Your task to perform on an android device: toggle show notifications on the lock screen Image 0: 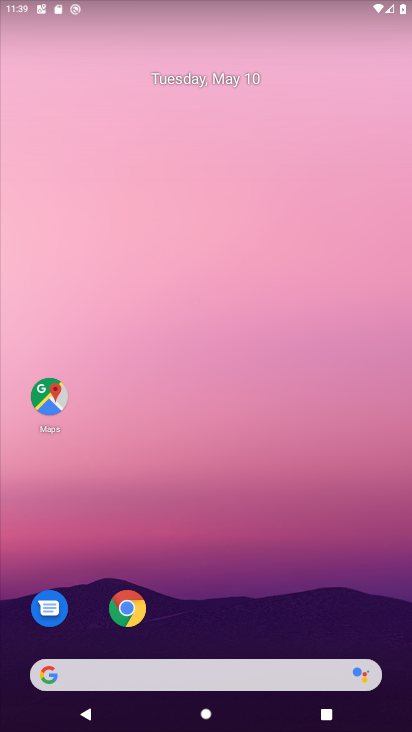
Step 0: drag from (196, 671) to (189, 309)
Your task to perform on an android device: toggle show notifications on the lock screen Image 1: 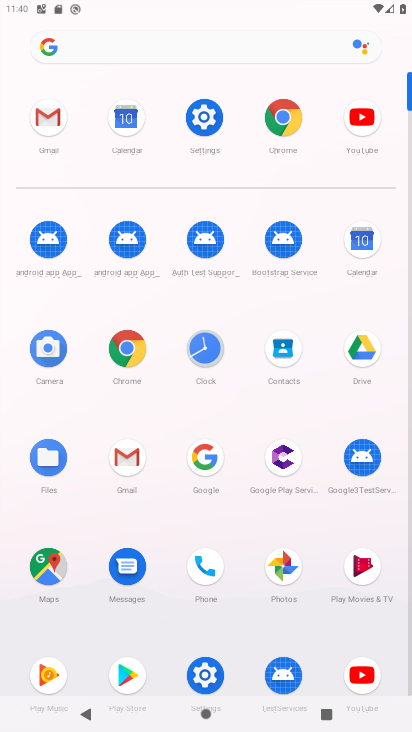
Step 1: click (206, 127)
Your task to perform on an android device: toggle show notifications on the lock screen Image 2: 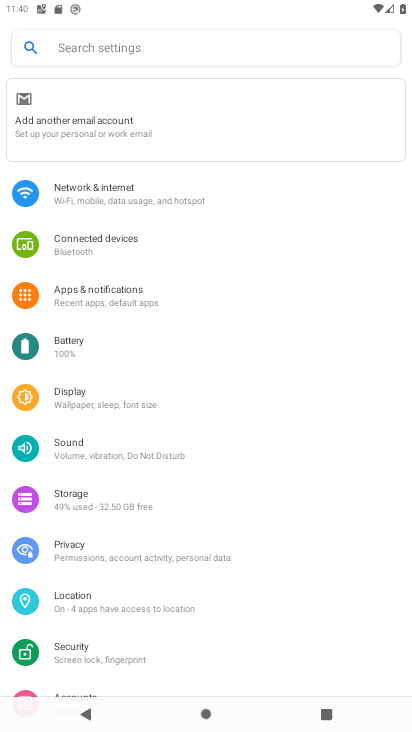
Step 2: click (134, 305)
Your task to perform on an android device: toggle show notifications on the lock screen Image 3: 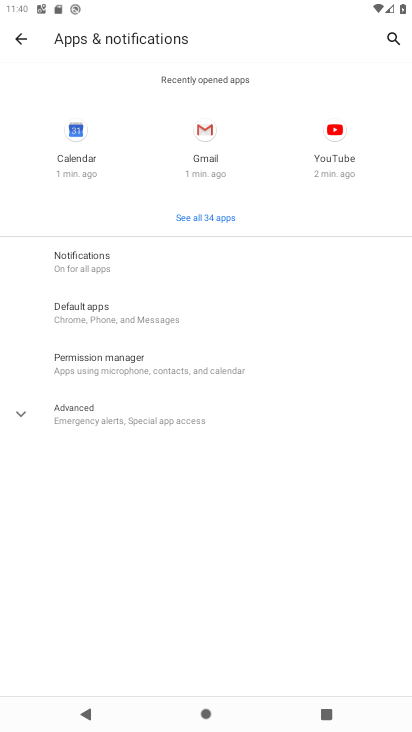
Step 3: click (95, 274)
Your task to perform on an android device: toggle show notifications on the lock screen Image 4: 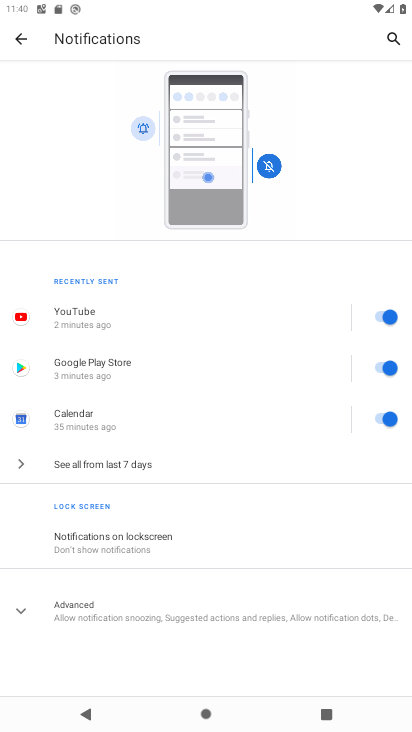
Step 4: click (144, 542)
Your task to perform on an android device: toggle show notifications on the lock screen Image 5: 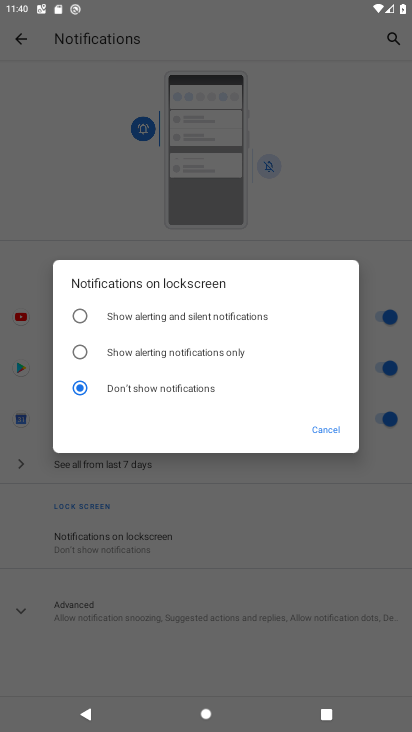
Step 5: click (183, 317)
Your task to perform on an android device: toggle show notifications on the lock screen Image 6: 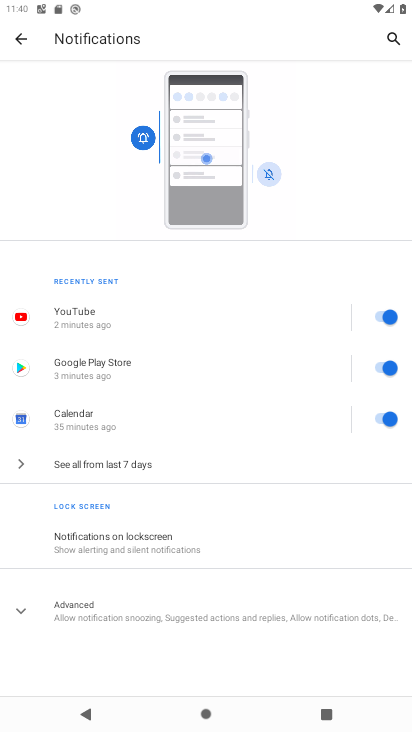
Step 6: task complete